Your task to perform on an android device: turn on priority inbox in the gmail app Image 0: 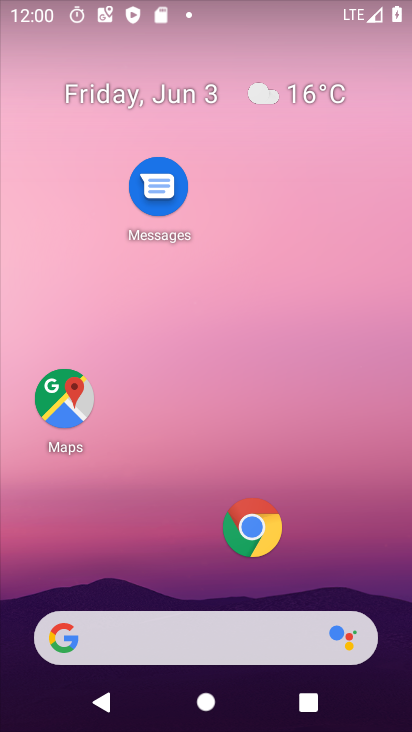
Step 0: press home button
Your task to perform on an android device: turn on priority inbox in the gmail app Image 1: 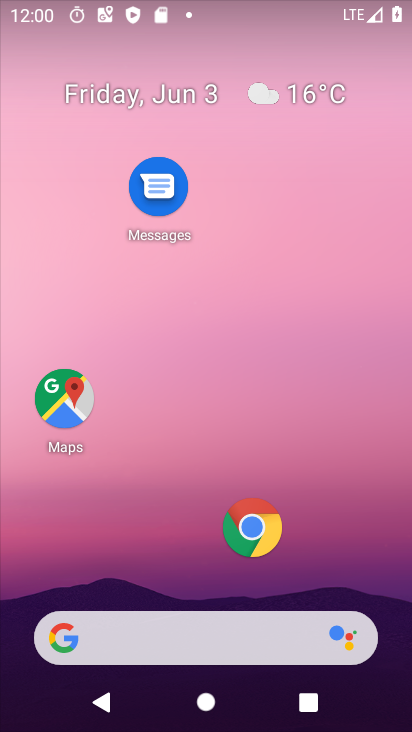
Step 1: drag from (304, 590) to (343, 55)
Your task to perform on an android device: turn on priority inbox in the gmail app Image 2: 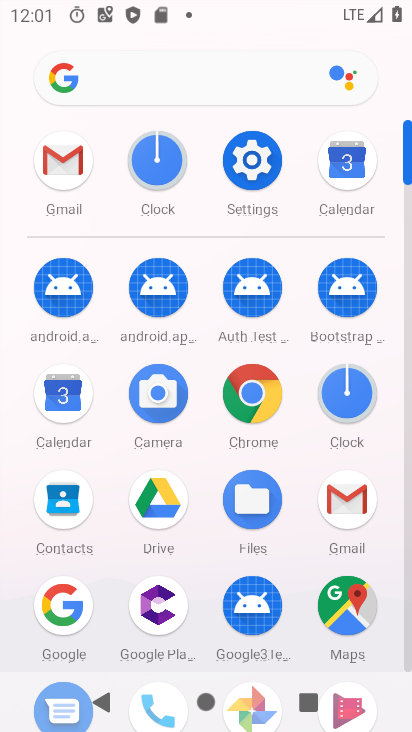
Step 2: click (60, 147)
Your task to perform on an android device: turn on priority inbox in the gmail app Image 3: 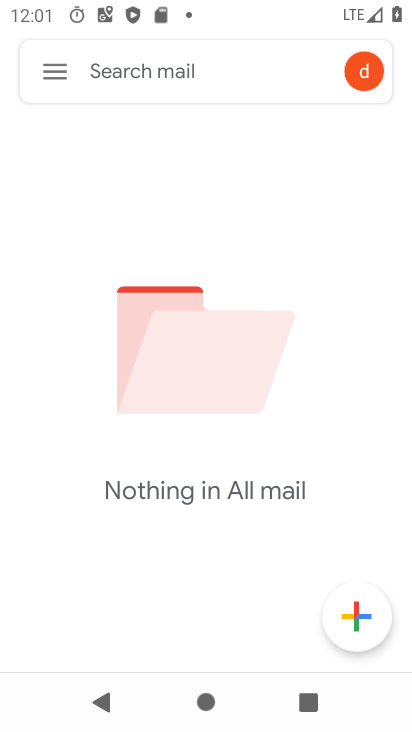
Step 3: click (53, 65)
Your task to perform on an android device: turn on priority inbox in the gmail app Image 4: 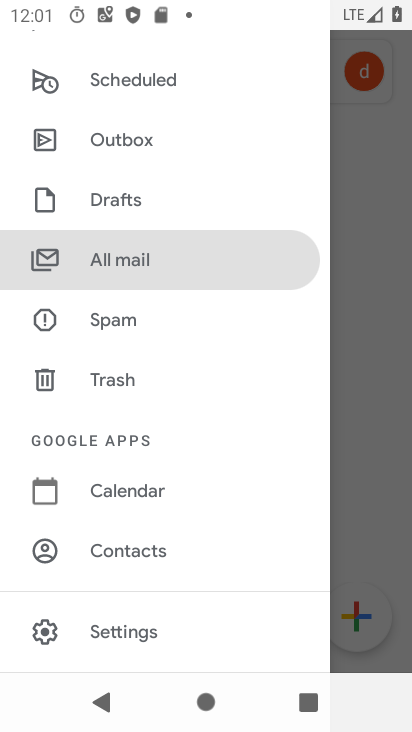
Step 4: click (166, 629)
Your task to perform on an android device: turn on priority inbox in the gmail app Image 5: 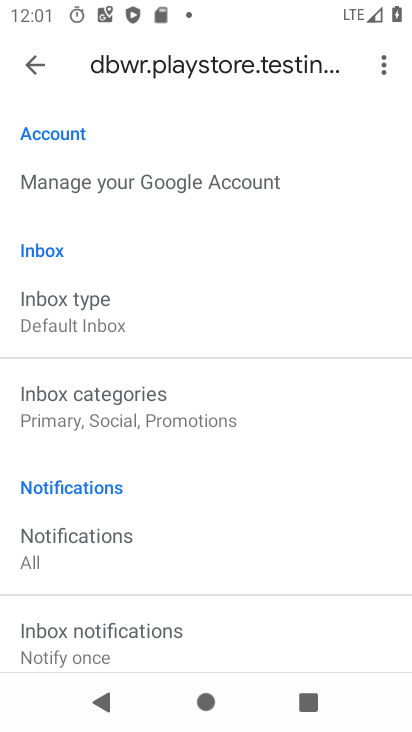
Step 5: click (146, 315)
Your task to perform on an android device: turn on priority inbox in the gmail app Image 6: 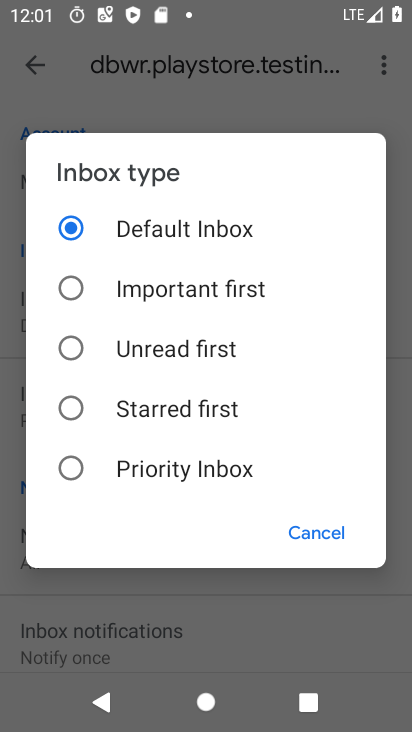
Step 6: click (71, 468)
Your task to perform on an android device: turn on priority inbox in the gmail app Image 7: 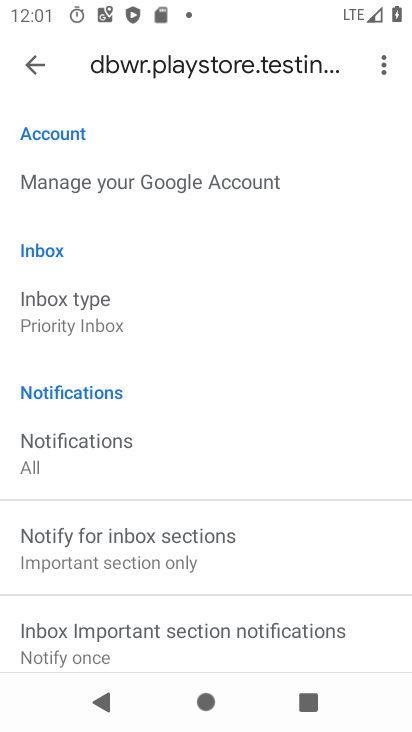
Step 7: task complete